Your task to perform on an android device: Show the shopping cart on ebay.com. Search for panasonic triple a on ebay.com, select the first entry, and add it to the cart. Image 0: 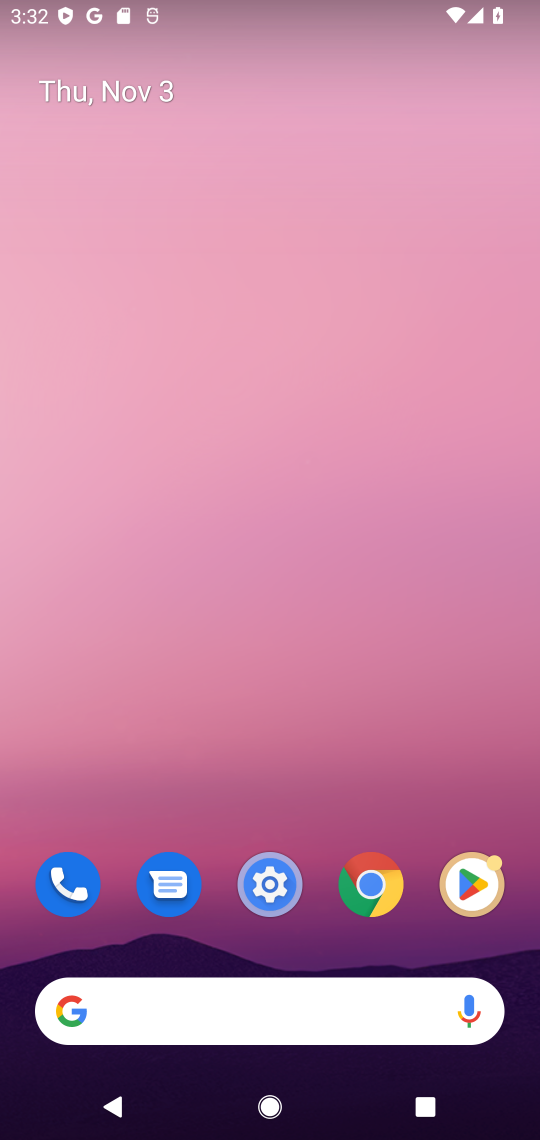
Step 0: press home button
Your task to perform on an android device: Show the shopping cart on ebay.com. Search for panasonic triple a on ebay.com, select the first entry, and add it to the cart. Image 1: 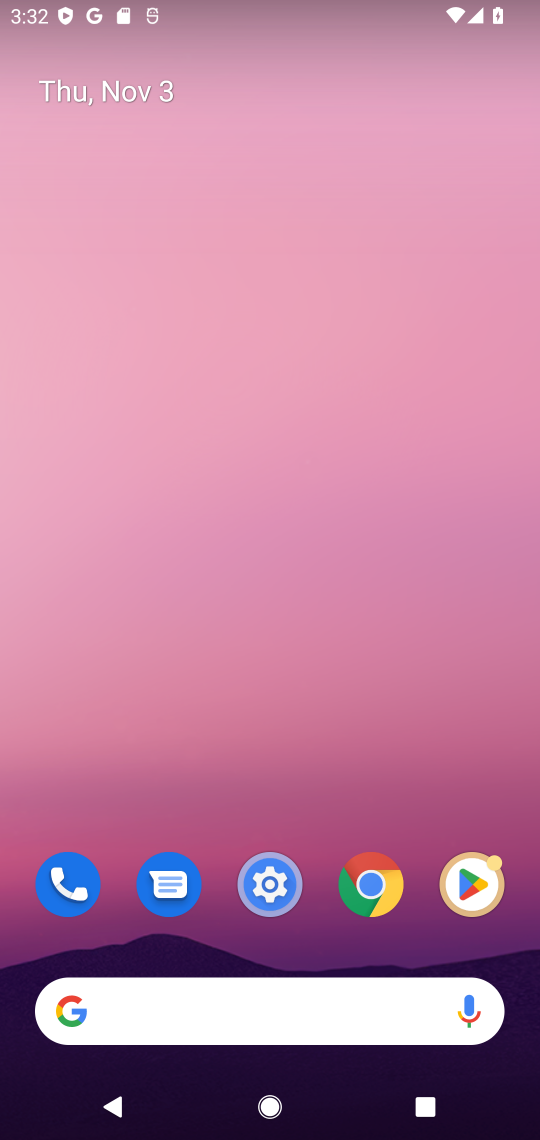
Step 1: click (106, 1006)
Your task to perform on an android device: Show the shopping cart on ebay.com. Search for panasonic triple a on ebay.com, select the first entry, and add it to the cart. Image 2: 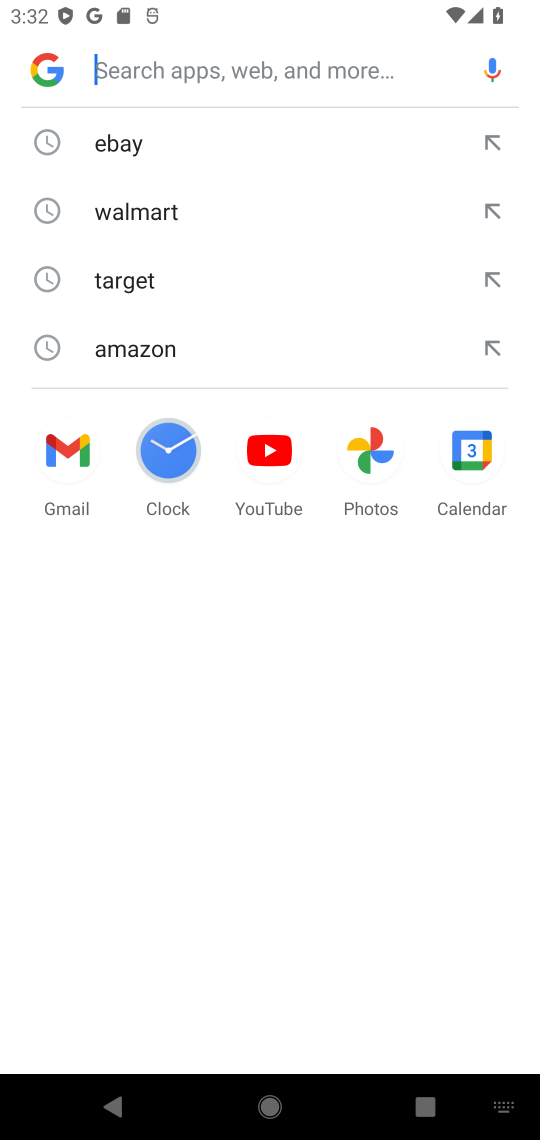
Step 2: type "ebay.com"
Your task to perform on an android device: Show the shopping cart on ebay.com. Search for panasonic triple a on ebay.com, select the first entry, and add it to the cart. Image 3: 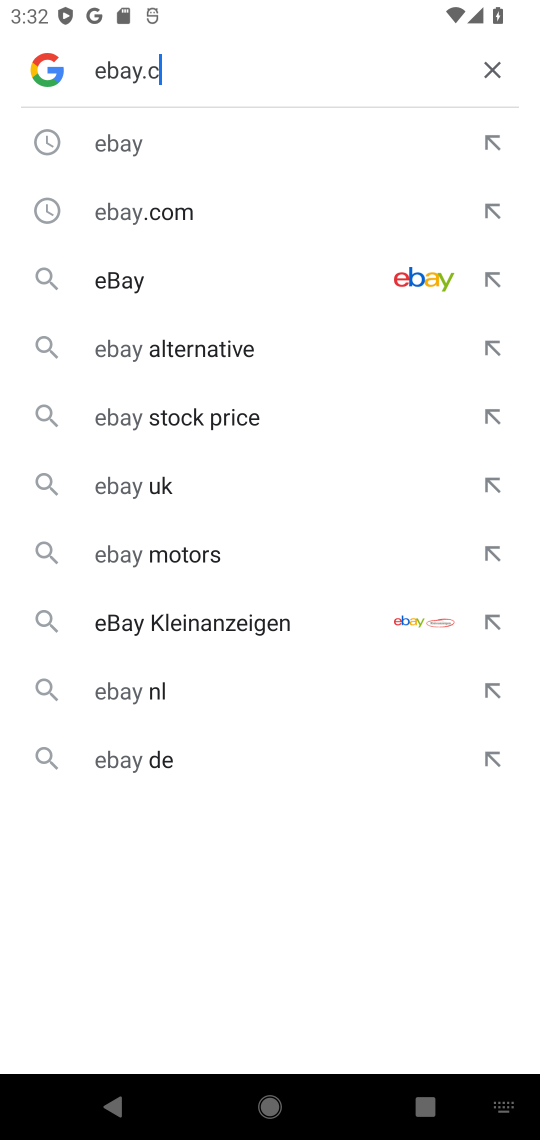
Step 3: press enter
Your task to perform on an android device: Show the shopping cart on ebay.com. Search for panasonic triple a on ebay.com, select the first entry, and add it to the cart. Image 4: 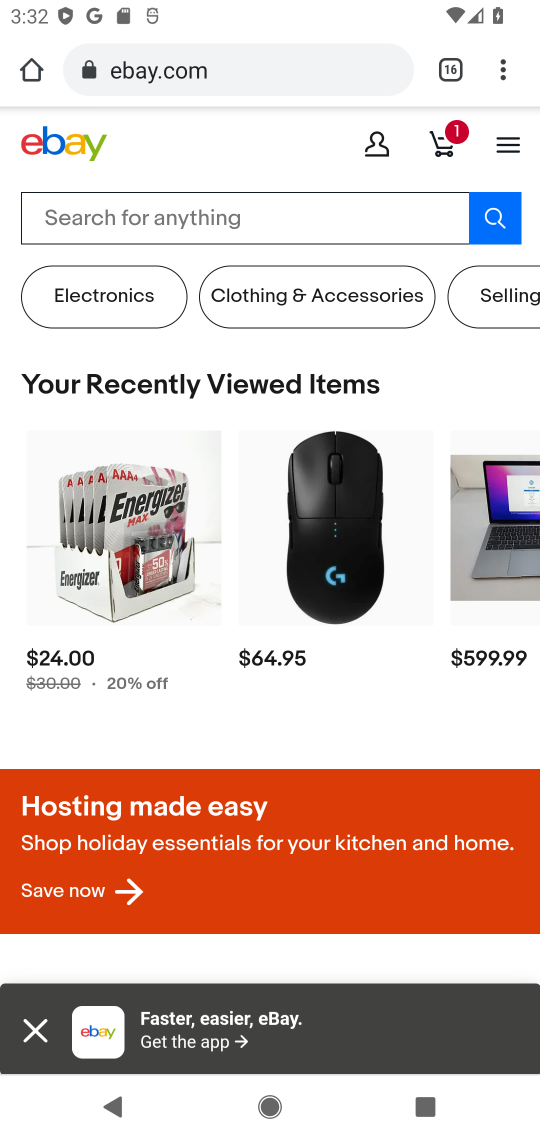
Step 4: click (446, 142)
Your task to perform on an android device: Show the shopping cart on ebay.com. Search for panasonic triple a on ebay.com, select the first entry, and add it to the cart. Image 5: 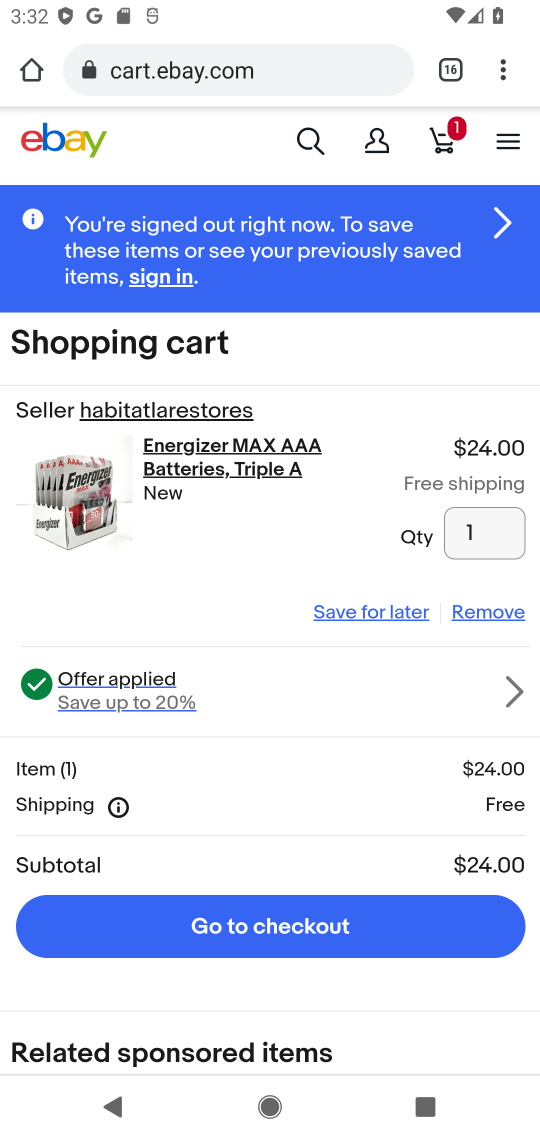
Step 5: click (303, 137)
Your task to perform on an android device: Show the shopping cart on ebay.com. Search for panasonic triple a on ebay.com, select the first entry, and add it to the cart. Image 6: 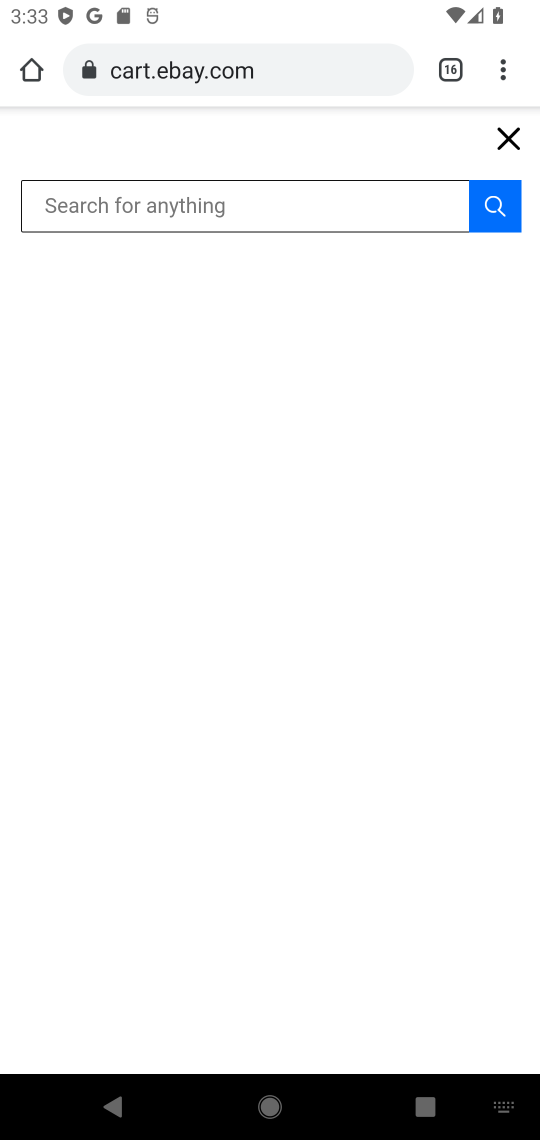
Step 6: type "panasonic triple a"
Your task to perform on an android device: Show the shopping cart on ebay.com. Search for panasonic triple a on ebay.com, select the first entry, and add it to the cart. Image 7: 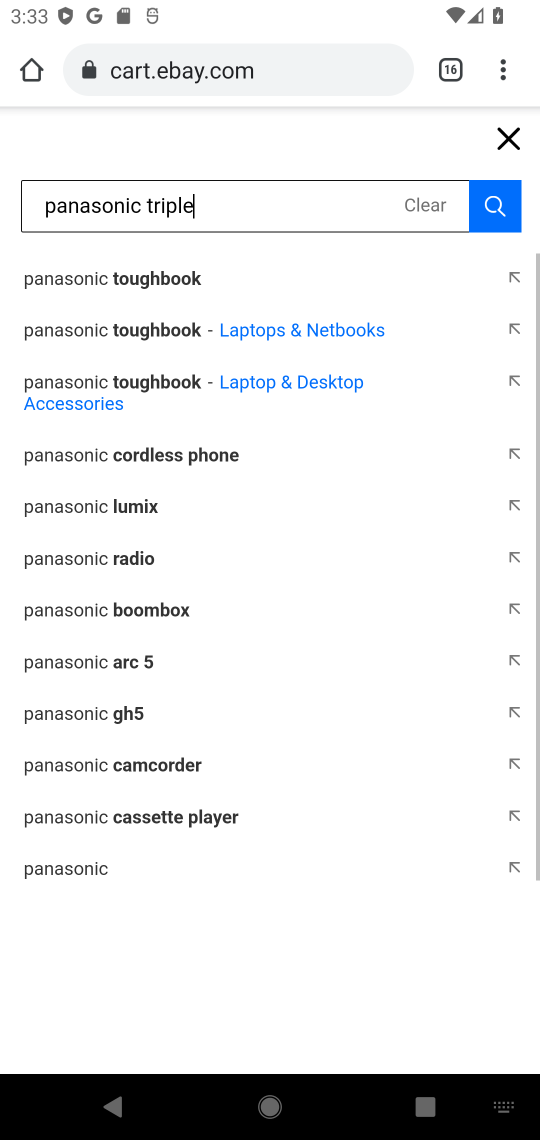
Step 7: press enter
Your task to perform on an android device: Show the shopping cart on ebay.com. Search for panasonic triple a on ebay.com, select the first entry, and add it to the cart. Image 8: 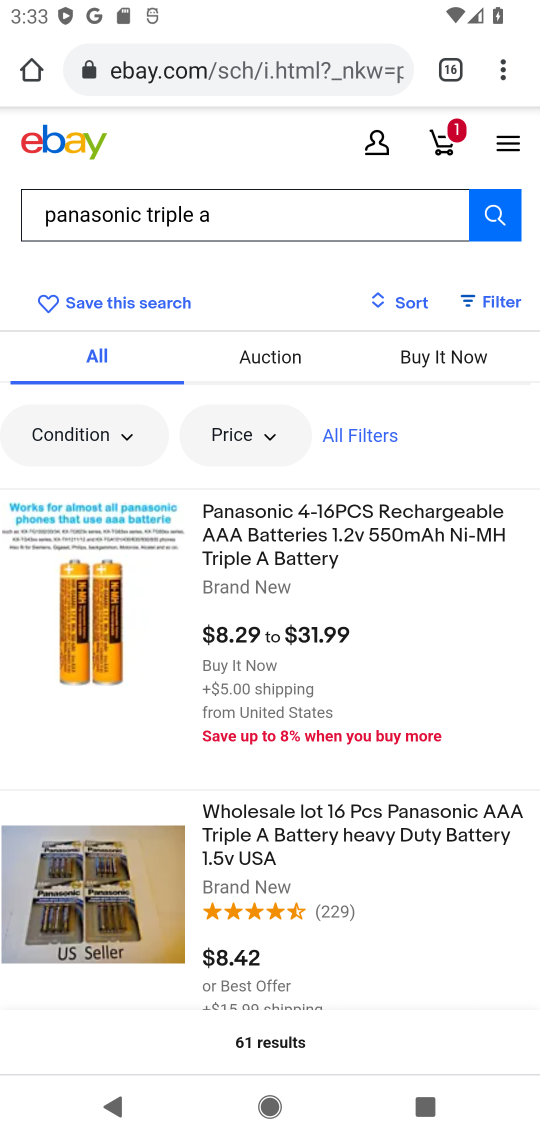
Step 8: drag from (381, 883) to (394, 720)
Your task to perform on an android device: Show the shopping cart on ebay.com. Search for panasonic triple a on ebay.com, select the first entry, and add it to the cart. Image 9: 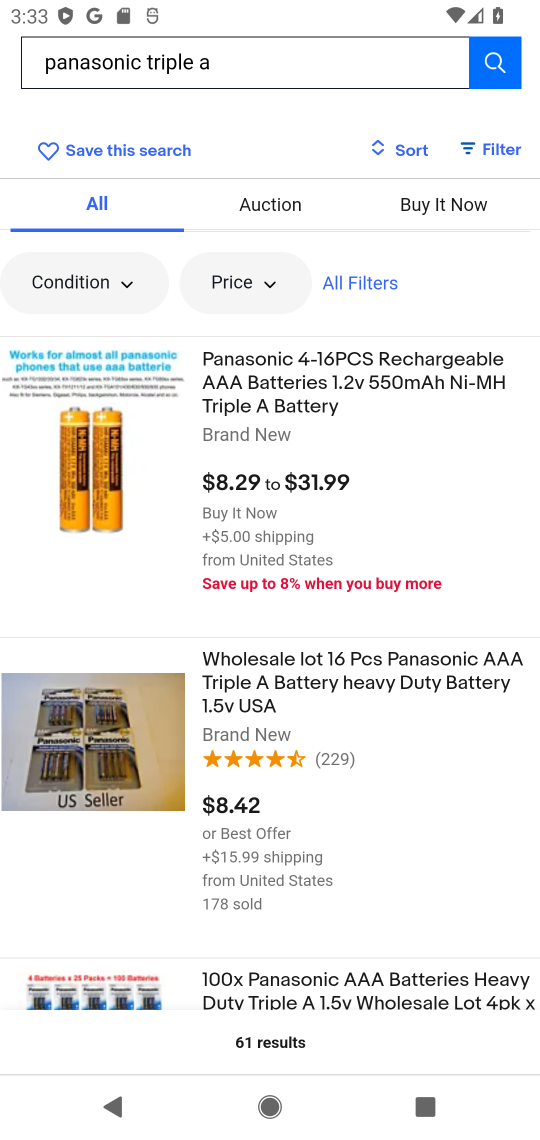
Step 9: click (313, 385)
Your task to perform on an android device: Show the shopping cart on ebay.com. Search for panasonic triple a on ebay.com, select the first entry, and add it to the cart. Image 10: 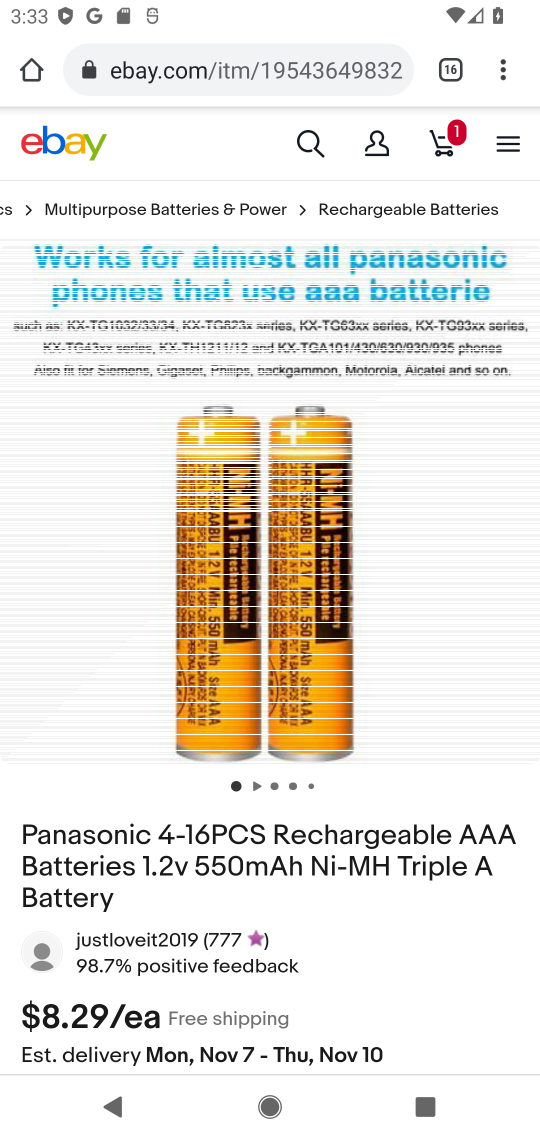
Step 10: drag from (344, 792) to (372, 324)
Your task to perform on an android device: Show the shopping cart on ebay.com. Search for panasonic triple a on ebay.com, select the first entry, and add it to the cart. Image 11: 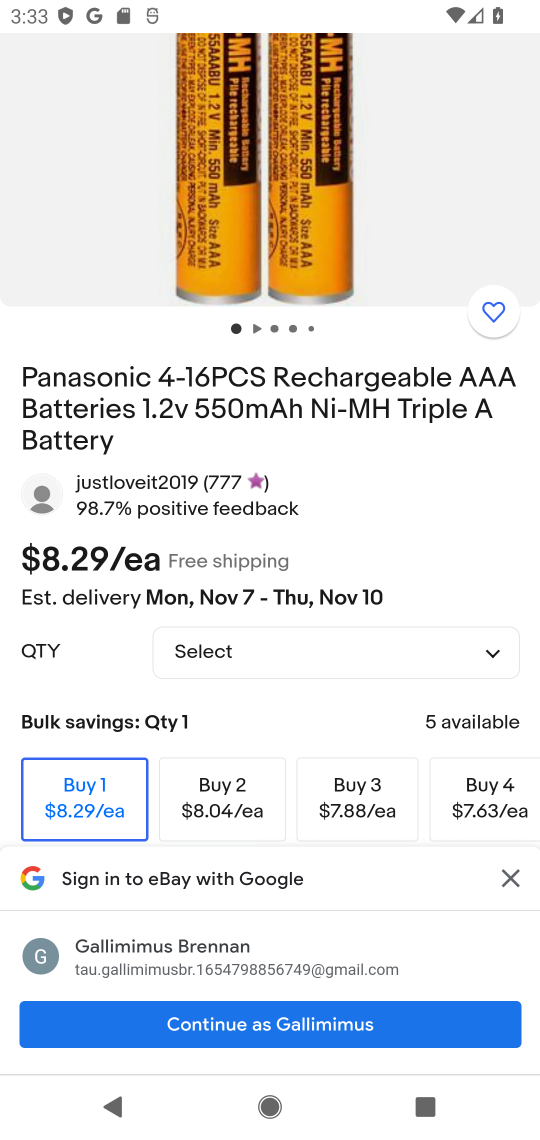
Step 11: click (515, 870)
Your task to perform on an android device: Show the shopping cart on ebay.com. Search for panasonic triple a on ebay.com, select the first entry, and add it to the cart. Image 12: 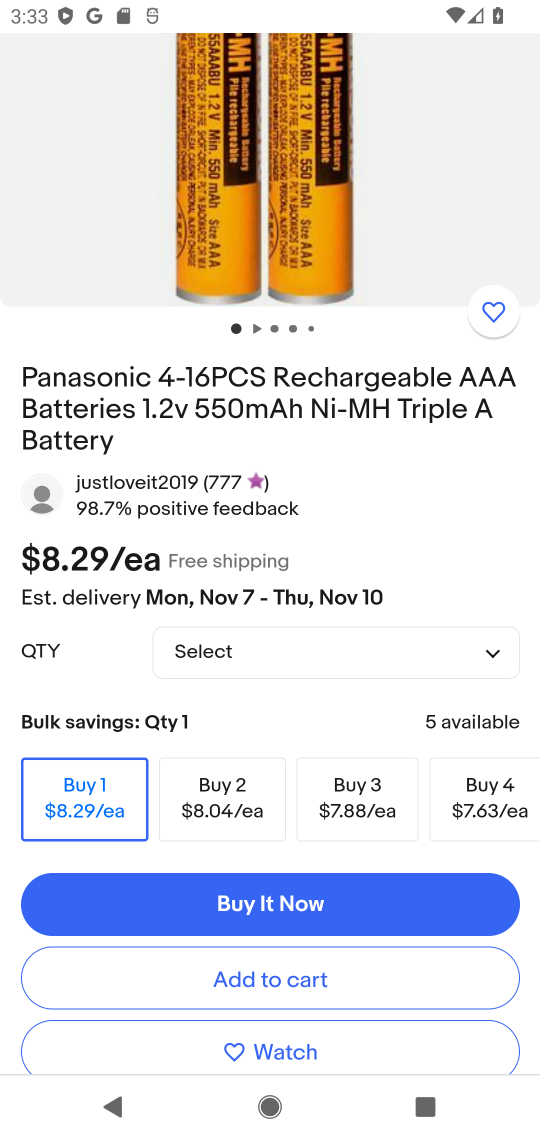
Step 12: drag from (275, 750) to (351, 343)
Your task to perform on an android device: Show the shopping cart on ebay.com. Search for panasonic triple a on ebay.com, select the first entry, and add it to the cart. Image 13: 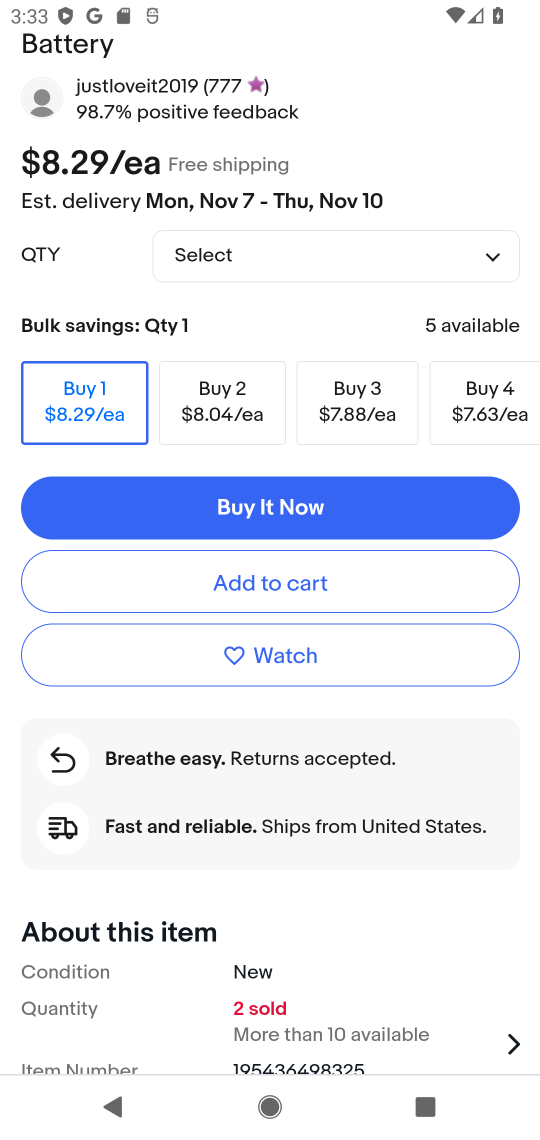
Step 13: click (245, 583)
Your task to perform on an android device: Show the shopping cart on ebay.com. Search for panasonic triple a on ebay.com, select the first entry, and add it to the cart. Image 14: 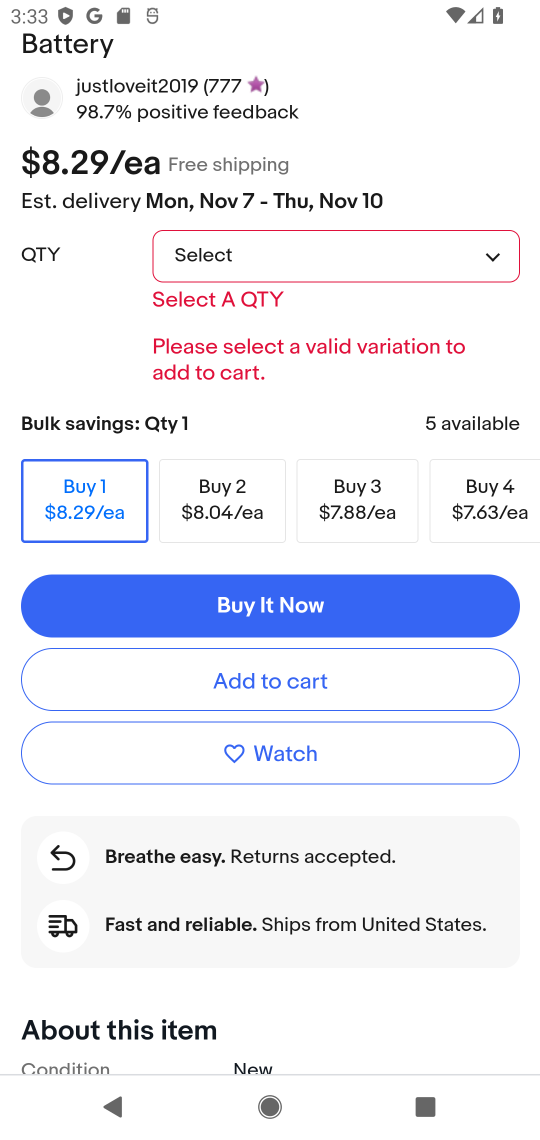
Step 14: click (494, 256)
Your task to perform on an android device: Show the shopping cart on ebay.com. Search for panasonic triple a on ebay.com, select the first entry, and add it to the cart. Image 15: 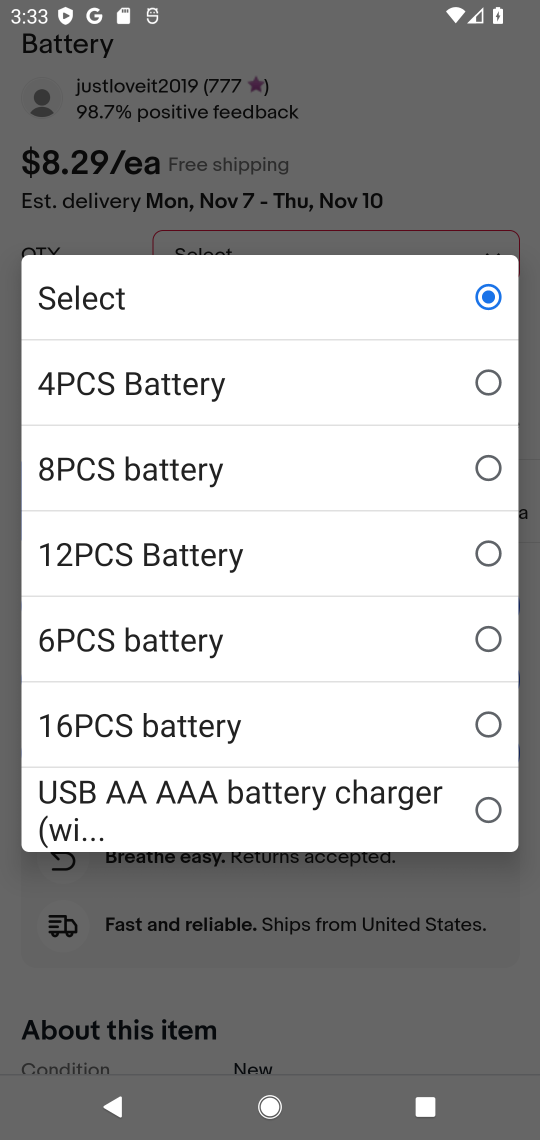
Step 15: click (497, 391)
Your task to perform on an android device: Show the shopping cart on ebay.com. Search for panasonic triple a on ebay.com, select the first entry, and add it to the cart. Image 16: 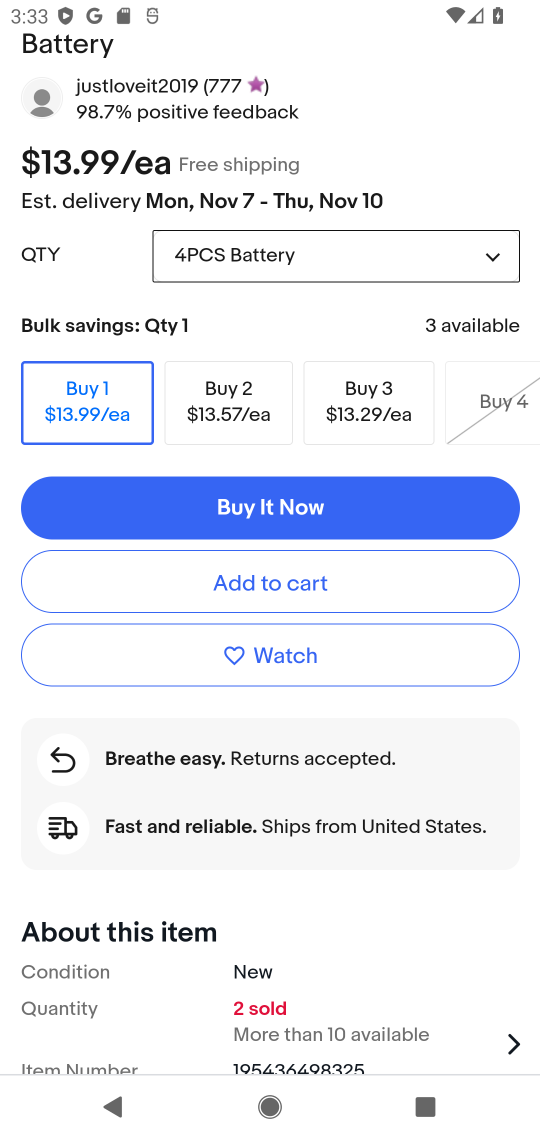
Step 16: click (268, 587)
Your task to perform on an android device: Show the shopping cart on ebay.com. Search for panasonic triple a on ebay.com, select the first entry, and add it to the cart. Image 17: 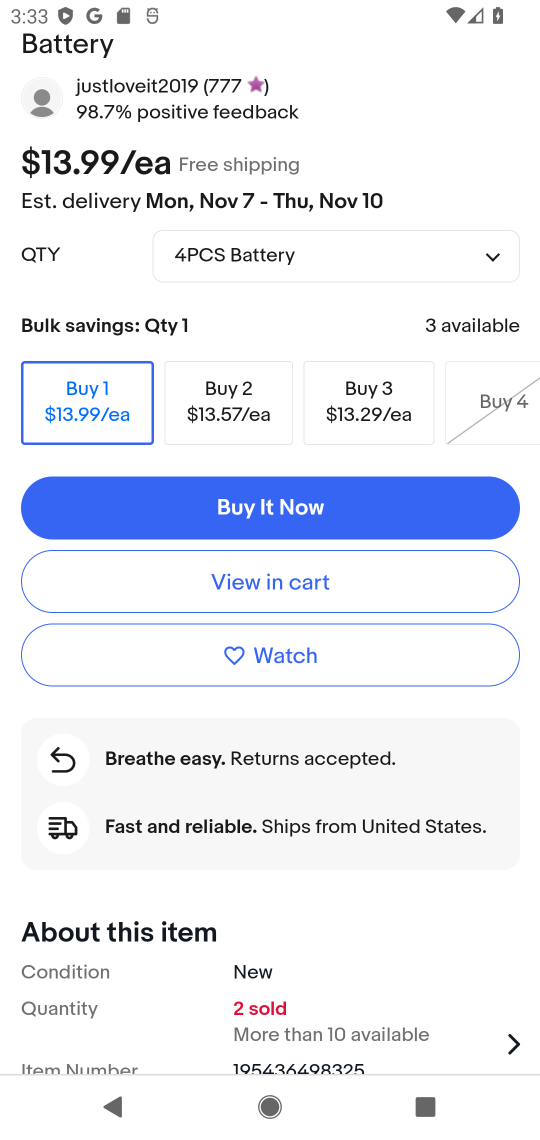
Step 17: task complete